Your task to perform on an android device: toggle improve location accuracy Image 0: 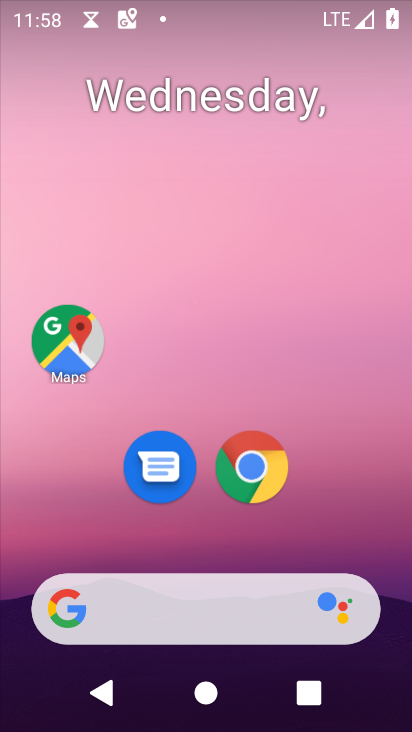
Step 0: drag from (260, 618) to (351, 148)
Your task to perform on an android device: toggle improve location accuracy Image 1: 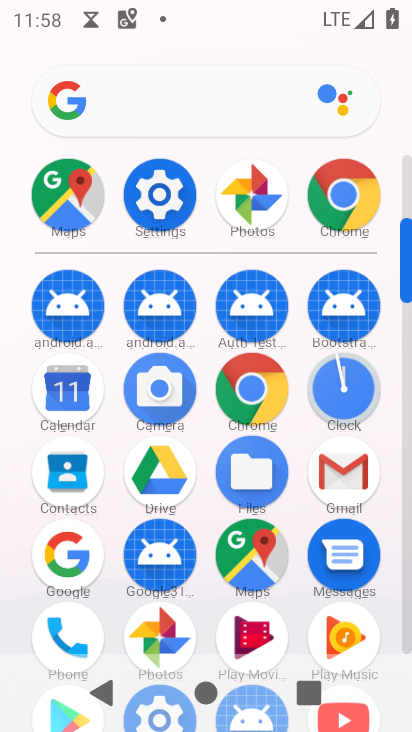
Step 1: click (170, 198)
Your task to perform on an android device: toggle improve location accuracy Image 2: 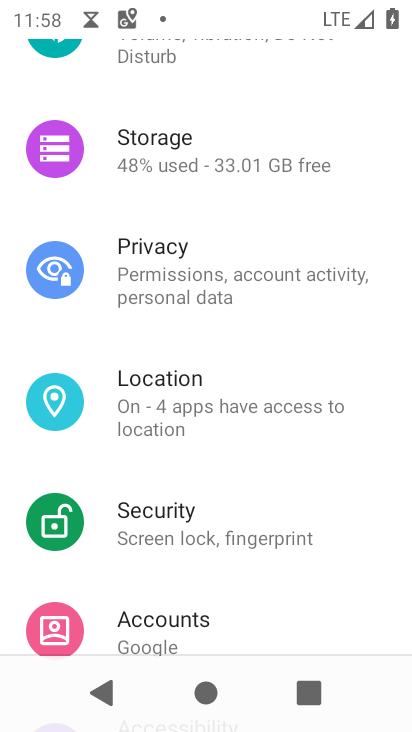
Step 2: click (216, 403)
Your task to perform on an android device: toggle improve location accuracy Image 3: 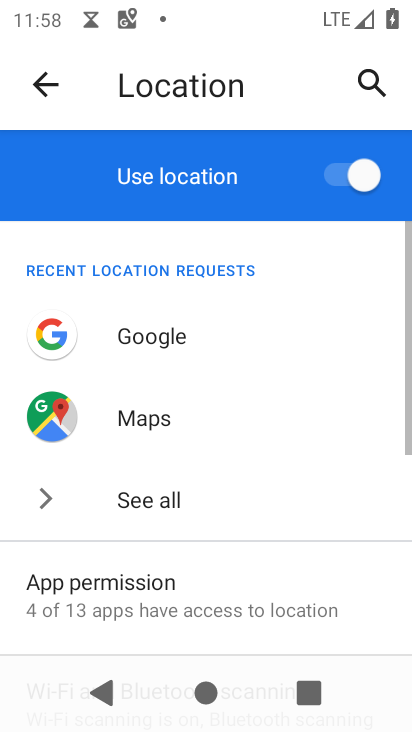
Step 3: drag from (223, 594) to (300, 245)
Your task to perform on an android device: toggle improve location accuracy Image 4: 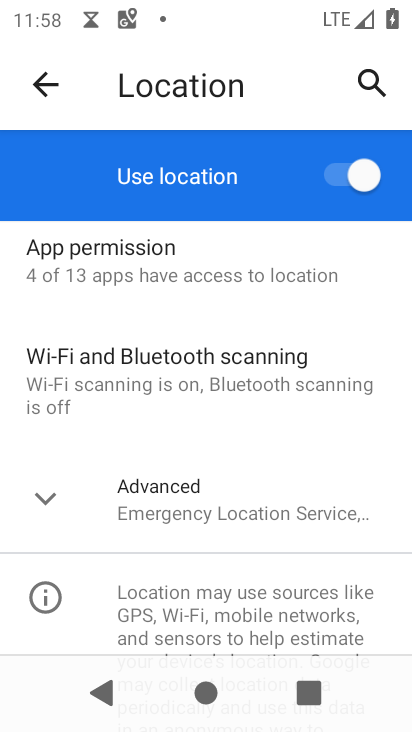
Step 4: click (197, 514)
Your task to perform on an android device: toggle improve location accuracy Image 5: 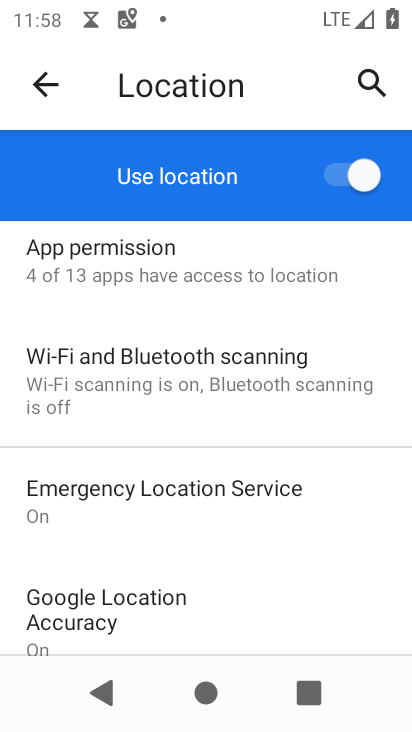
Step 5: drag from (193, 580) to (257, 404)
Your task to perform on an android device: toggle improve location accuracy Image 6: 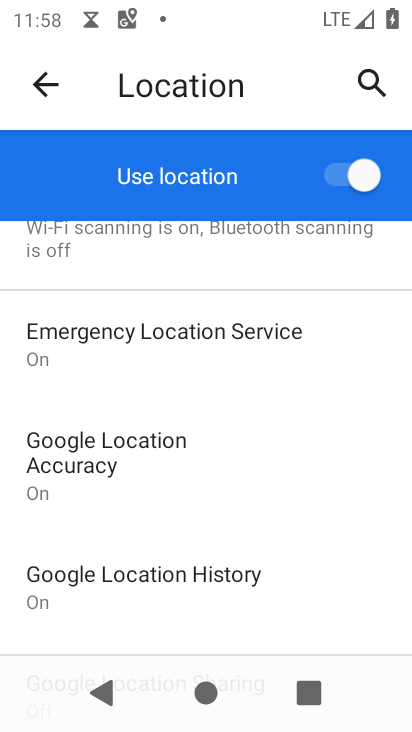
Step 6: click (131, 452)
Your task to perform on an android device: toggle improve location accuracy Image 7: 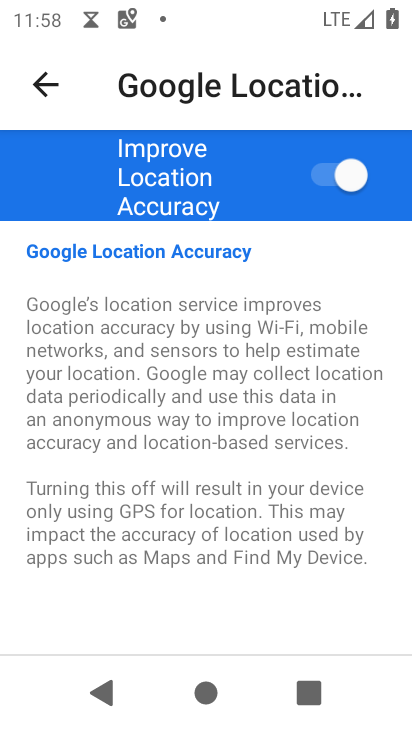
Step 7: click (333, 176)
Your task to perform on an android device: toggle improve location accuracy Image 8: 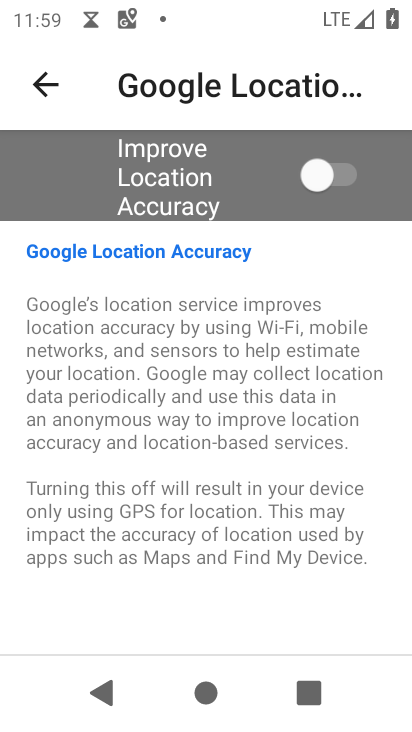
Step 8: task complete